Your task to perform on an android device: change keyboard looks Image 0: 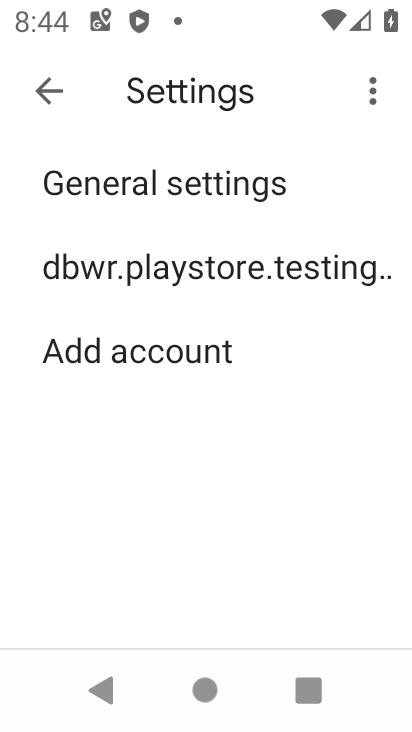
Step 0: press home button
Your task to perform on an android device: change keyboard looks Image 1: 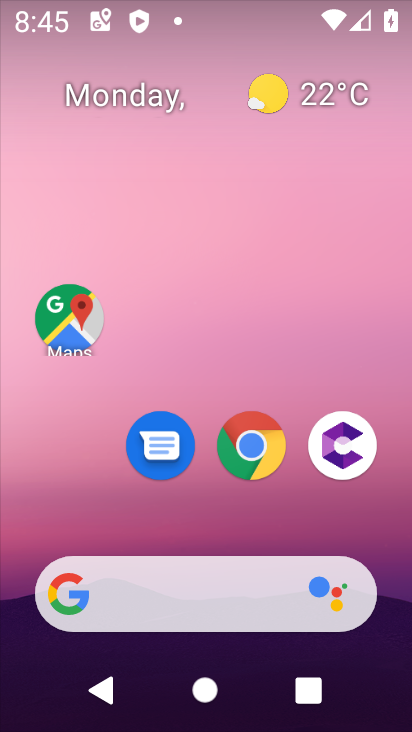
Step 1: drag from (275, 341) to (207, 7)
Your task to perform on an android device: change keyboard looks Image 2: 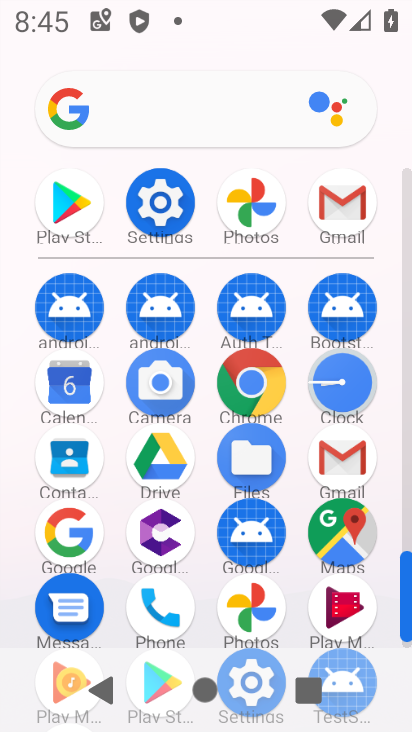
Step 2: click (174, 201)
Your task to perform on an android device: change keyboard looks Image 3: 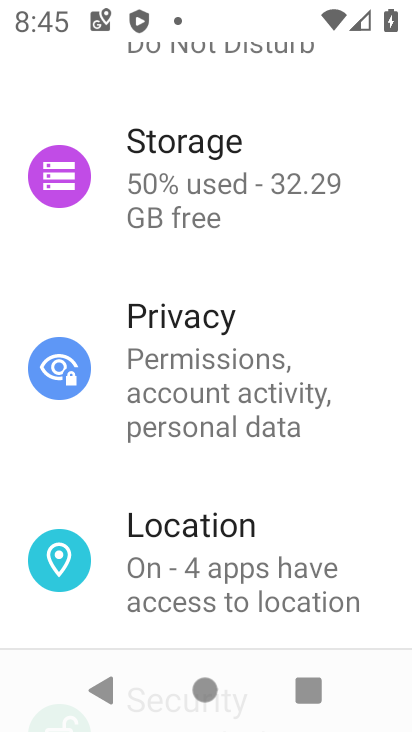
Step 3: drag from (100, 478) to (130, 98)
Your task to perform on an android device: change keyboard looks Image 4: 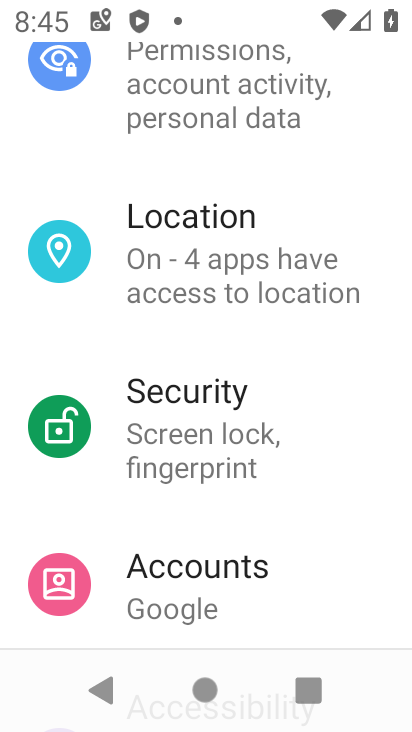
Step 4: drag from (365, 529) to (359, 100)
Your task to perform on an android device: change keyboard looks Image 5: 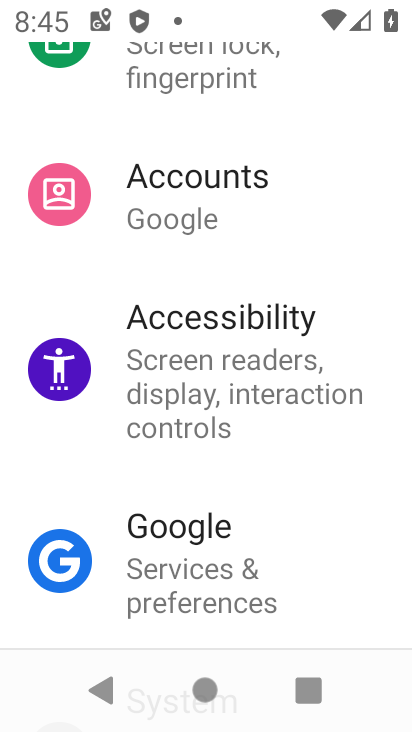
Step 5: drag from (319, 526) to (306, 212)
Your task to perform on an android device: change keyboard looks Image 6: 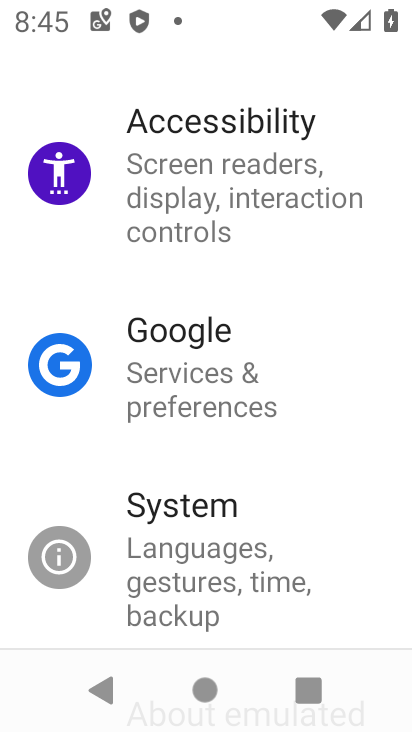
Step 6: click (165, 562)
Your task to perform on an android device: change keyboard looks Image 7: 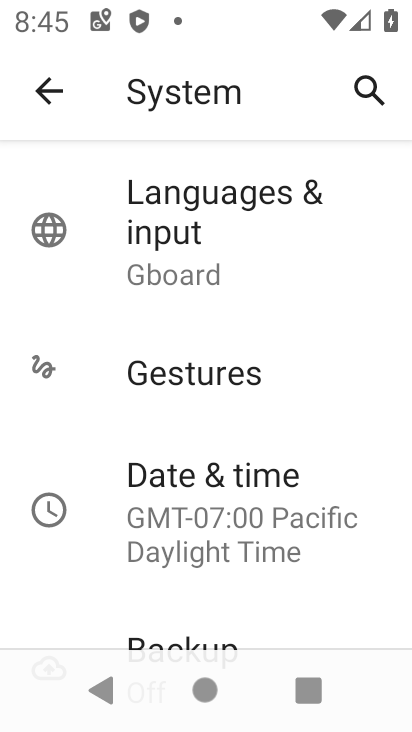
Step 7: click (222, 203)
Your task to perform on an android device: change keyboard looks Image 8: 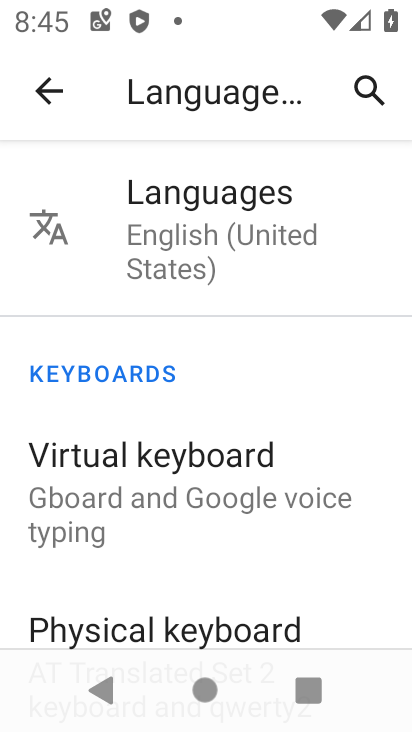
Step 8: click (90, 473)
Your task to perform on an android device: change keyboard looks Image 9: 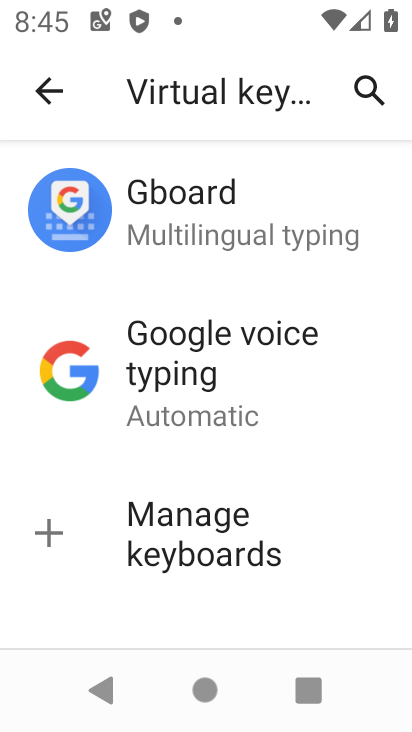
Step 9: click (209, 214)
Your task to perform on an android device: change keyboard looks Image 10: 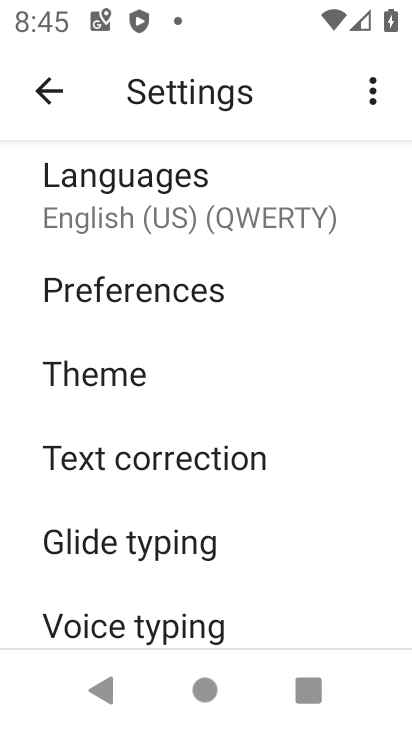
Step 10: click (111, 382)
Your task to perform on an android device: change keyboard looks Image 11: 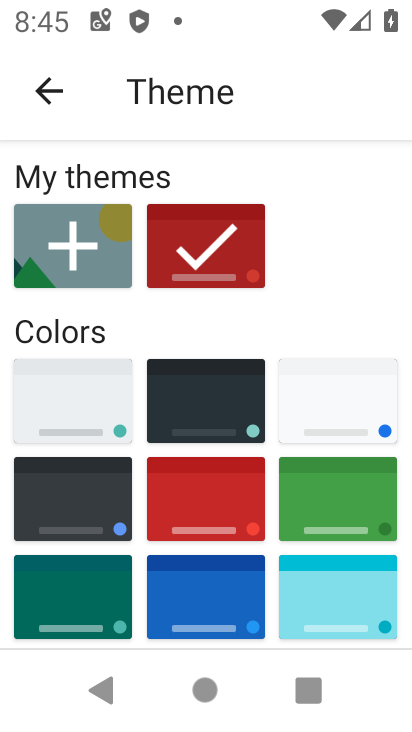
Step 11: task complete